Your task to perform on an android device: change the clock display to analog Image 0: 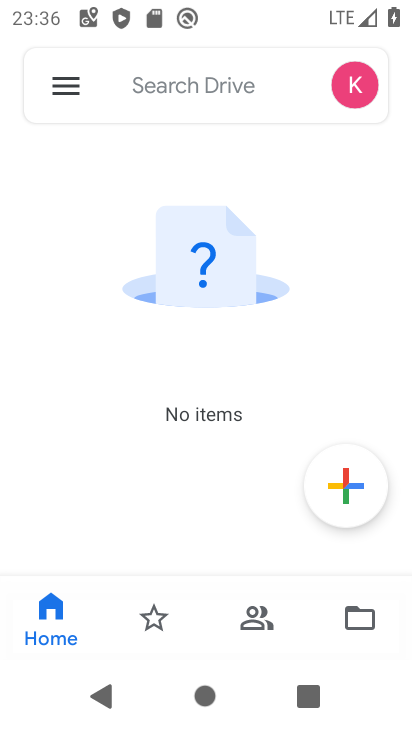
Step 0: press back button
Your task to perform on an android device: change the clock display to analog Image 1: 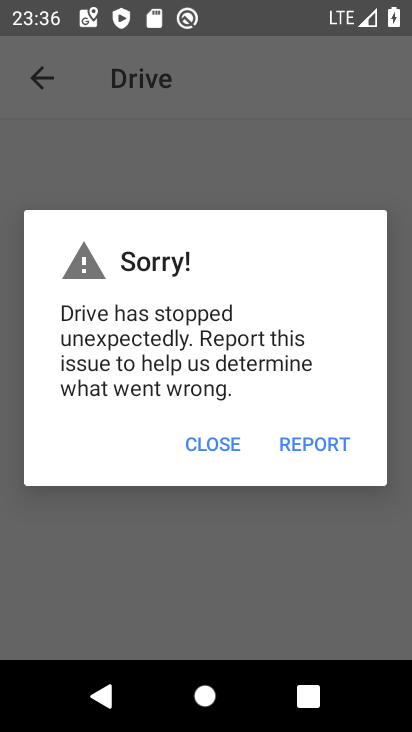
Step 1: press home button
Your task to perform on an android device: change the clock display to analog Image 2: 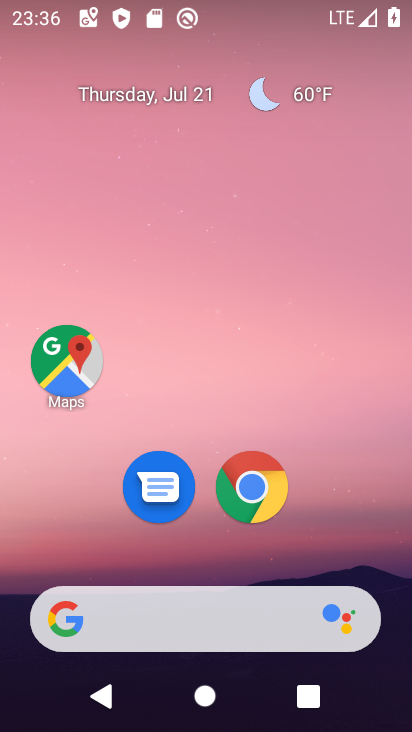
Step 2: drag from (136, 566) to (225, 30)
Your task to perform on an android device: change the clock display to analog Image 3: 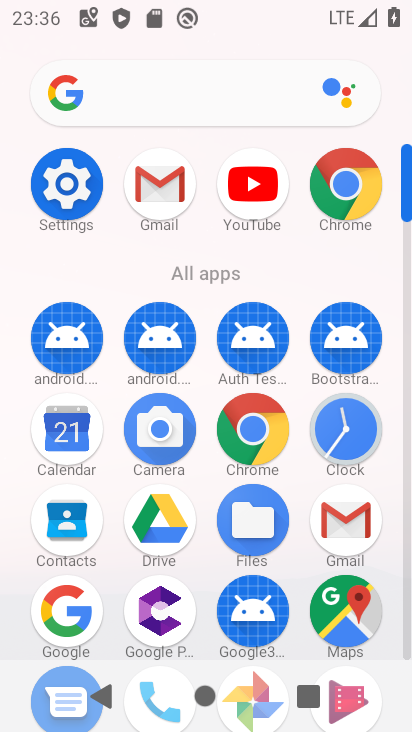
Step 3: click (335, 426)
Your task to perform on an android device: change the clock display to analog Image 4: 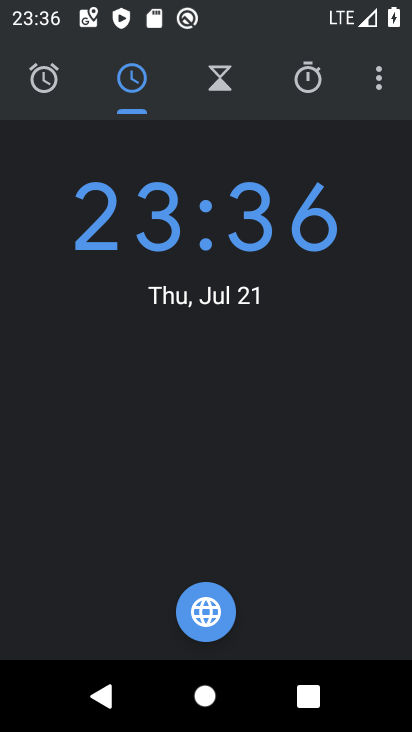
Step 4: click (380, 76)
Your task to perform on an android device: change the clock display to analog Image 5: 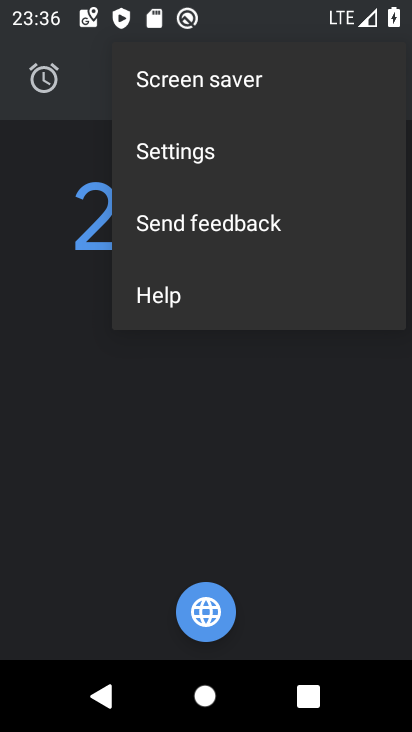
Step 5: click (181, 143)
Your task to perform on an android device: change the clock display to analog Image 6: 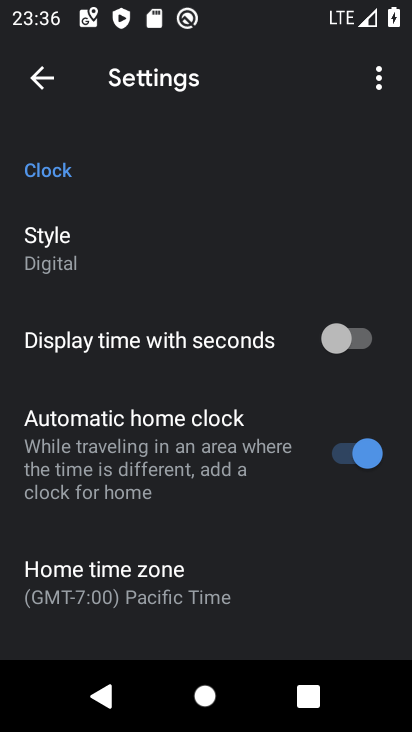
Step 6: click (83, 239)
Your task to perform on an android device: change the clock display to analog Image 7: 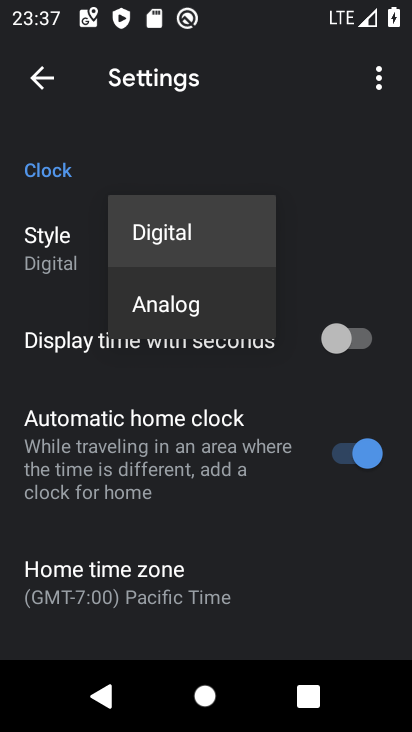
Step 7: click (187, 305)
Your task to perform on an android device: change the clock display to analog Image 8: 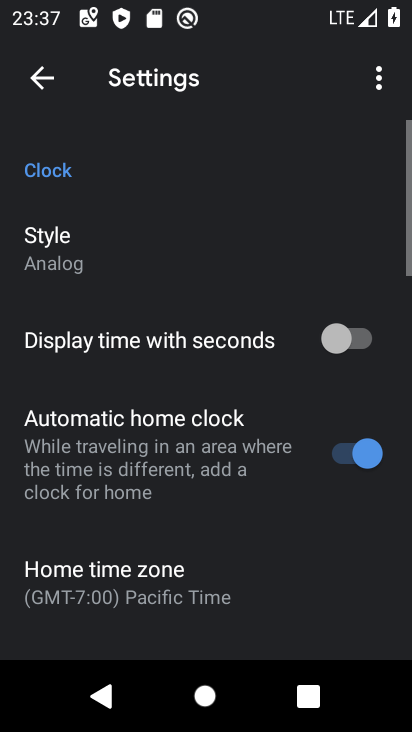
Step 8: task complete